Your task to perform on an android device: Add asus rog to the cart on ebay.com, then select checkout. Image 0: 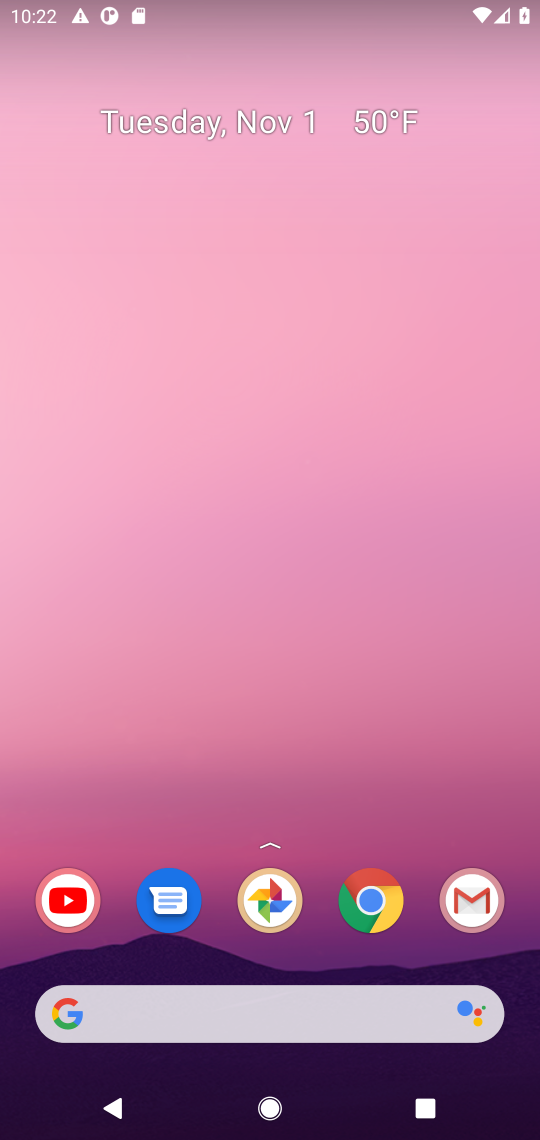
Step 0: click (365, 924)
Your task to perform on an android device: Add asus rog to the cart on ebay.com, then select checkout. Image 1: 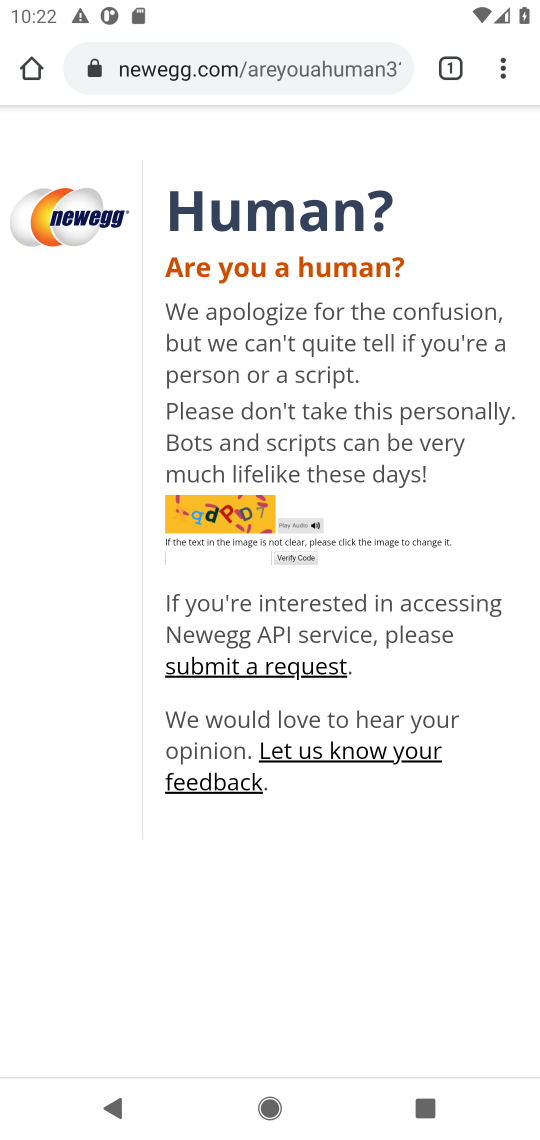
Step 1: click (264, 68)
Your task to perform on an android device: Add asus rog to the cart on ebay.com, then select checkout. Image 2: 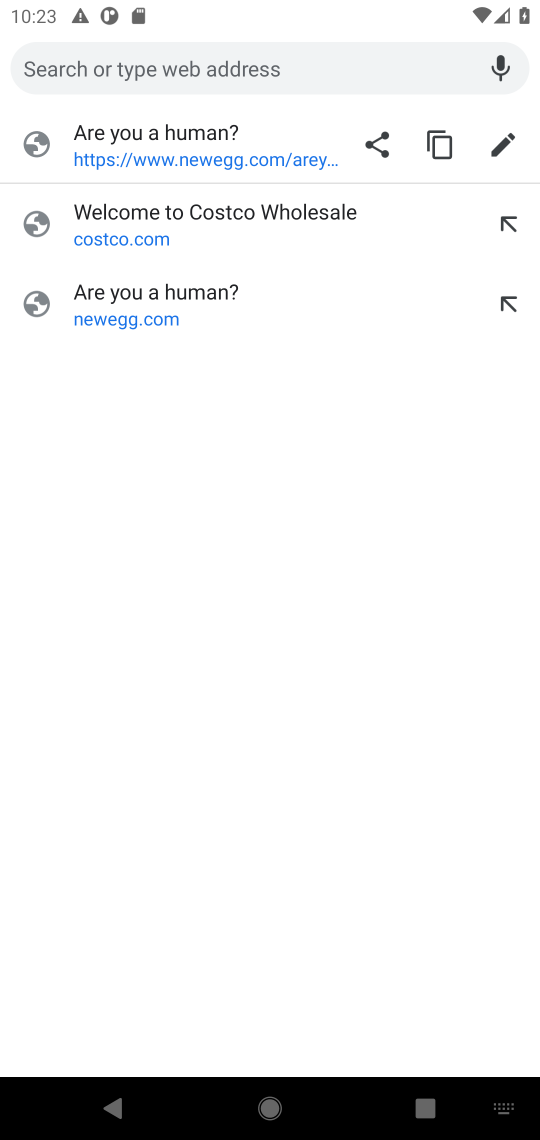
Step 2: type "ebay"
Your task to perform on an android device: Add asus rog to the cart on ebay.com, then select checkout. Image 3: 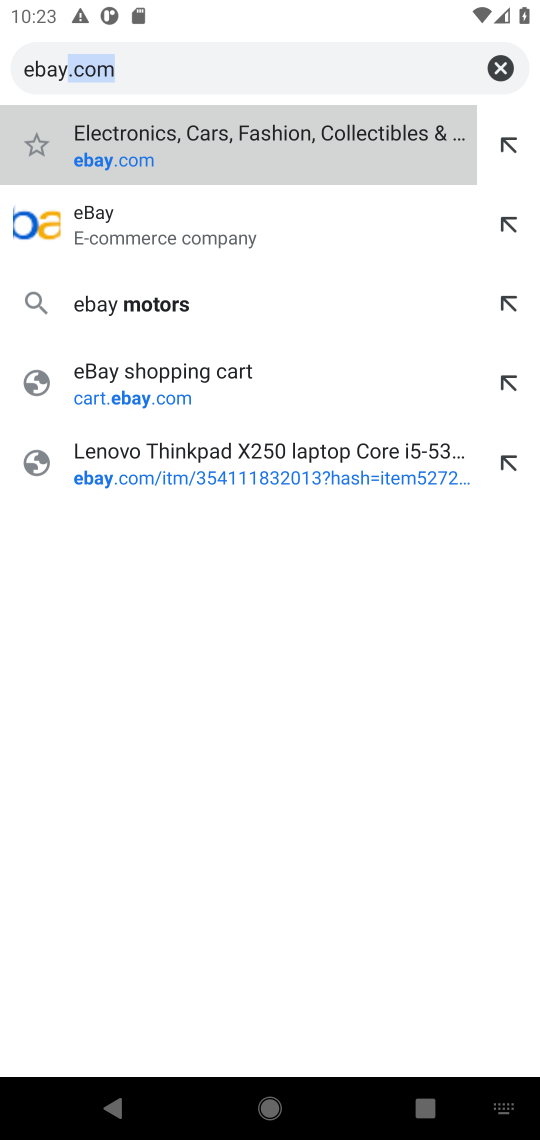
Step 3: click (135, 236)
Your task to perform on an android device: Add asus rog to the cart on ebay.com, then select checkout. Image 4: 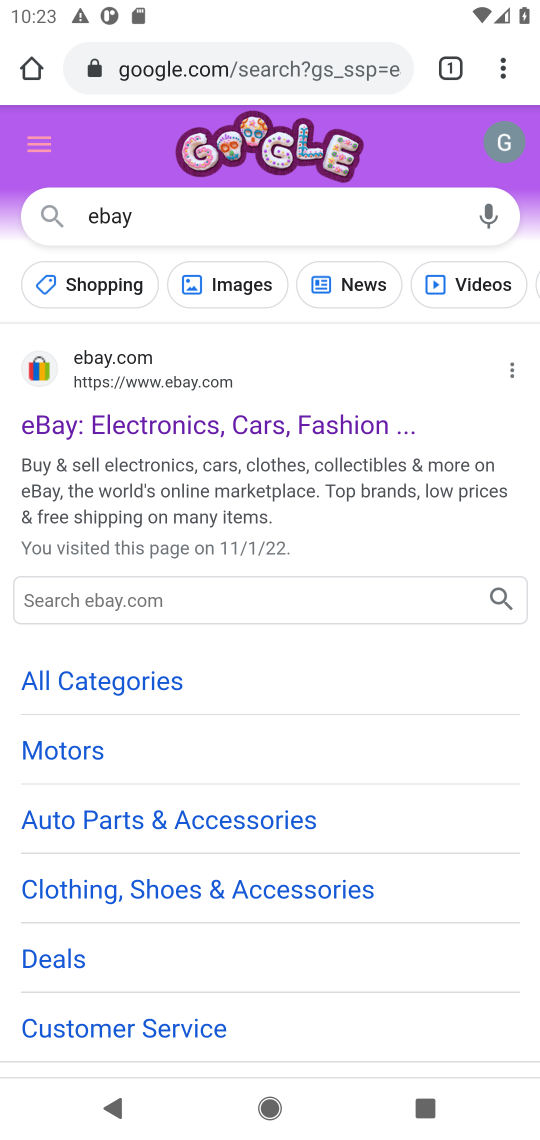
Step 4: click (183, 409)
Your task to perform on an android device: Add asus rog to the cart on ebay.com, then select checkout. Image 5: 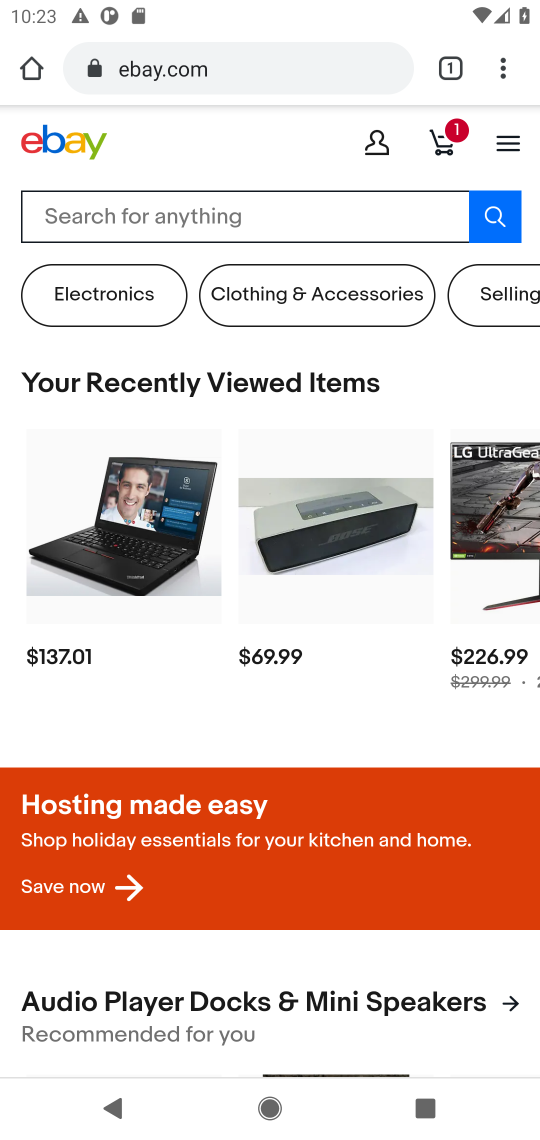
Step 5: click (127, 220)
Your task to perform on an android device: Add asus rog to the cart on ebay.com, then select checkout. Image 6: 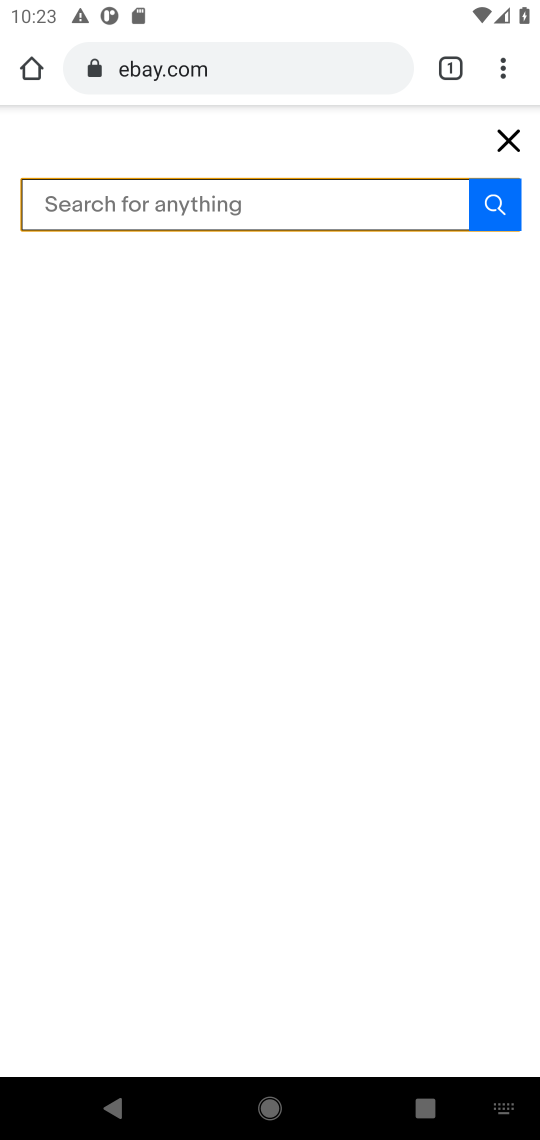
Step 6: type "asus rog "
Your task to perform on an android device: Add asus rog to the cart on ebay.com, then select checkout. Image 7: 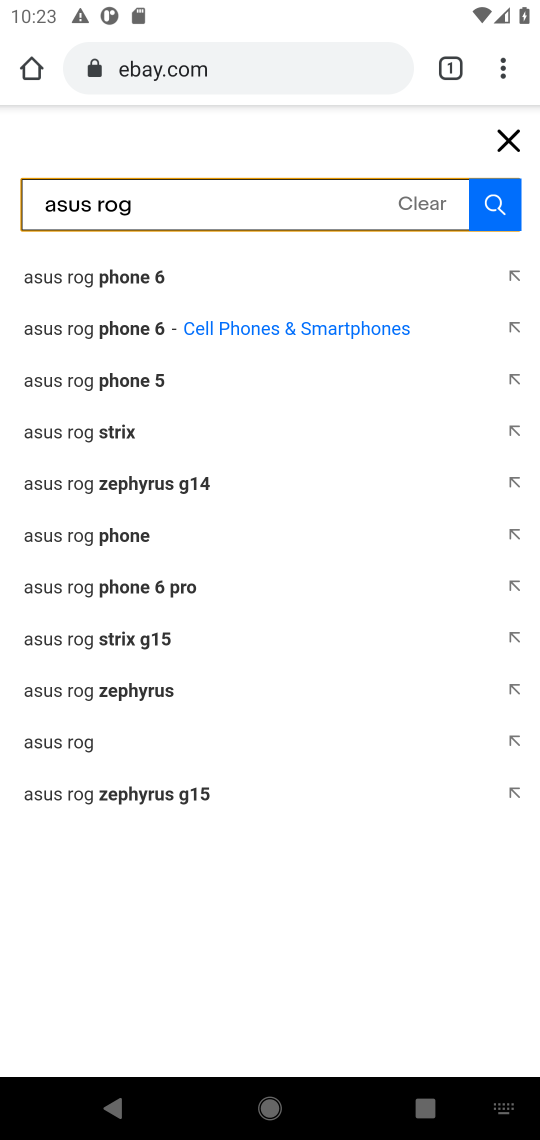
Step 7: click (494, 207)
Your task to perform on an android device: Add asus rog to the cart on ebay.com, then select checkout. Image 8: 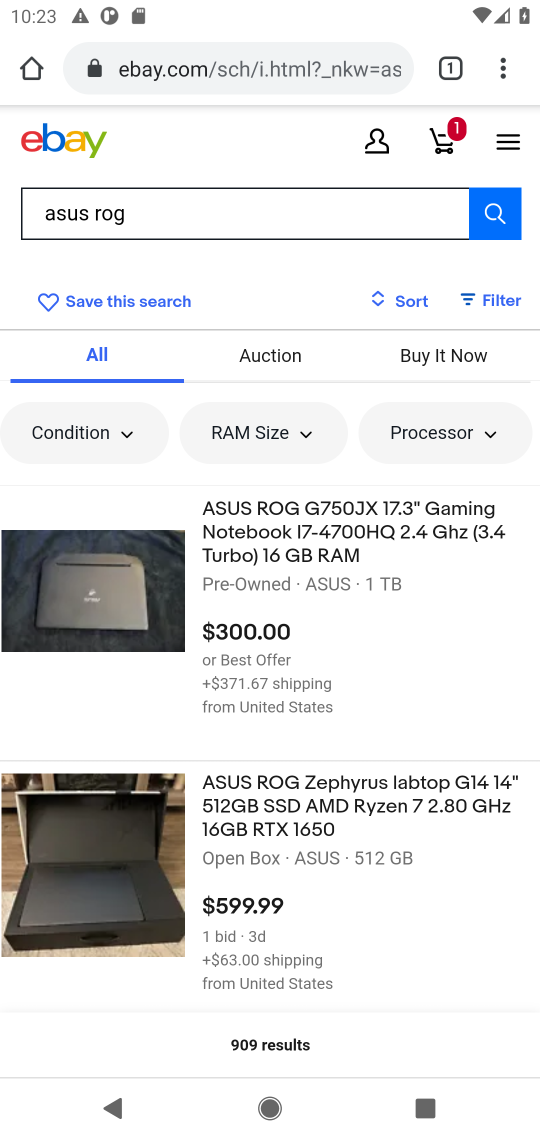
Step 8: click (402, 533)
Your task to perform on an android device: Add asus rog to the cart on ebay.com, then select checkout. Image 9: 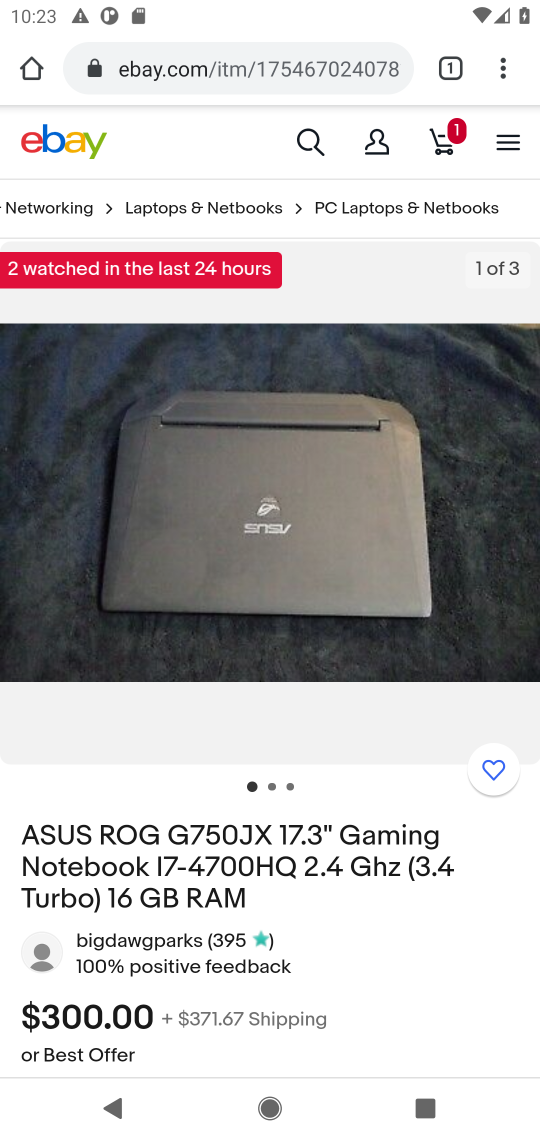
Step 9: drag from (146, 1001) to (443, 130)
Your task to perform on an android device: Add asus rog to the cart on ebay.com, then select checkout. Image 10: 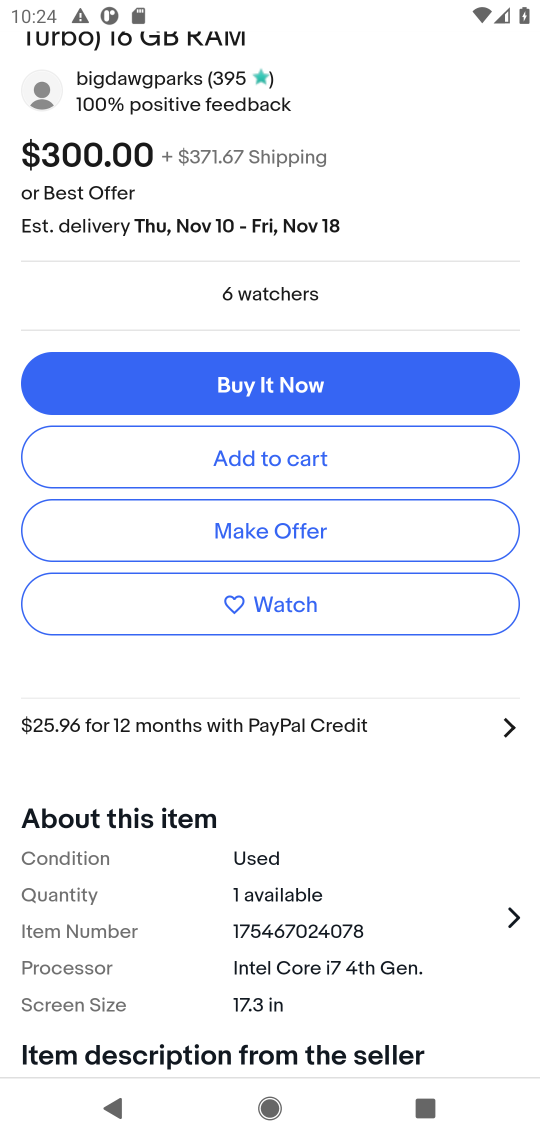
Step 10: click (281, 473)
Your task to perform on an android device: Add asus rog to the cart on ebay.com, then select checkout. Image 11: 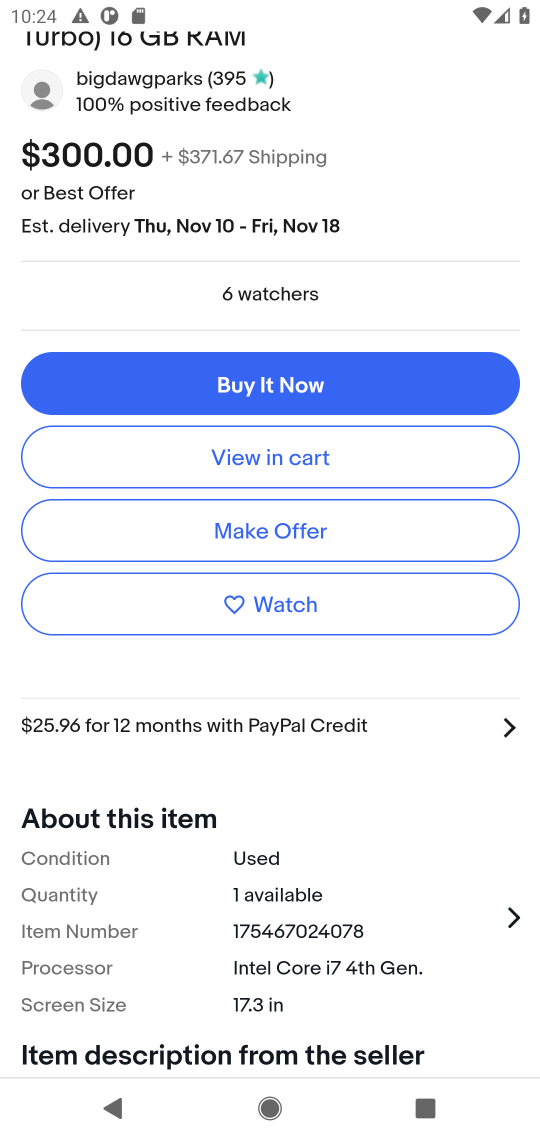
Step 11: click (281, 473)
Your task to perform on an android device: Add asus rog to the cart on ebay.com, then select checkout. Image 12: 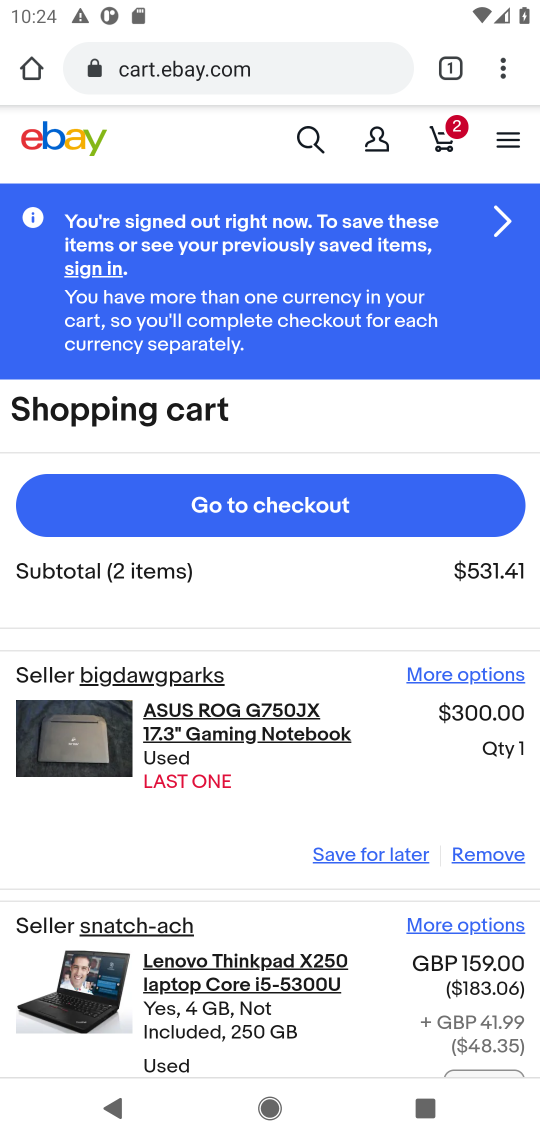
Step 12: click (272, 509)
Your task to perform on an android device: Add asus rog to the cart on ebay.com, then select checkout. Image 13: 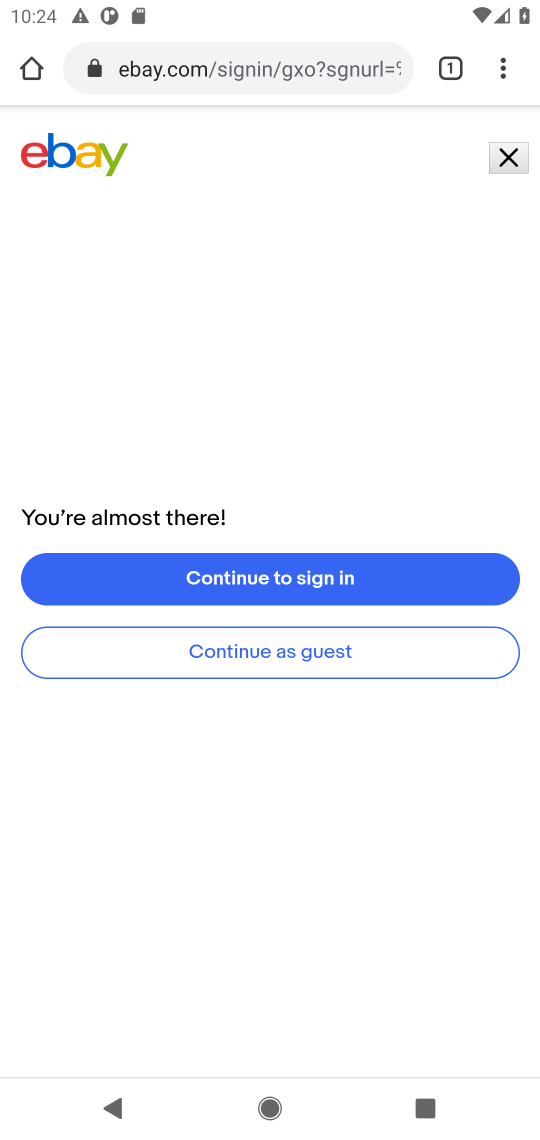
Step 13: task complete